Your task to perform on an android device: Is it going to rain today? Image 0: 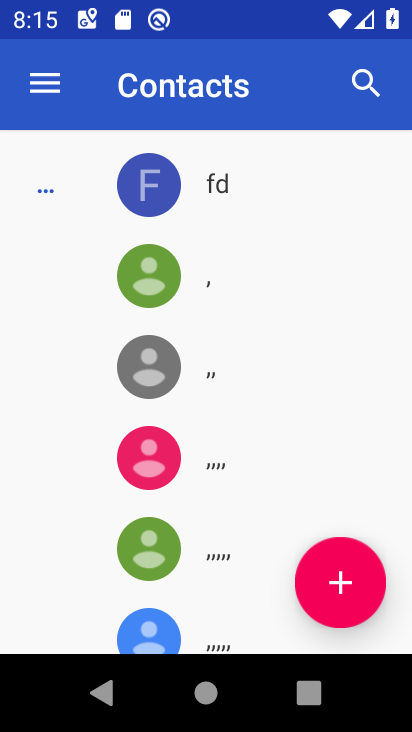
Step 0: press home button
Your task to perform on an android device: Is it going to rain today? Image 1: 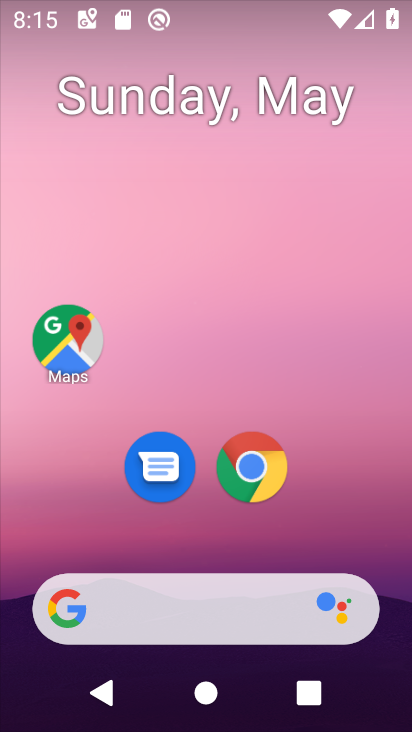
Step 1: drag from (368, 512) to (312, 99)
Your task to perform on an android device: Is it going to rain today? Image 2: 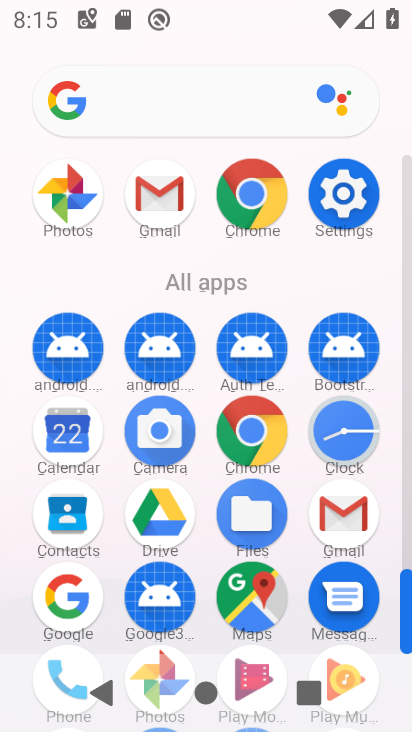
Step 2: click (267, 189)
Your task to perform on an android device: Is it going to rain today? Image 3: 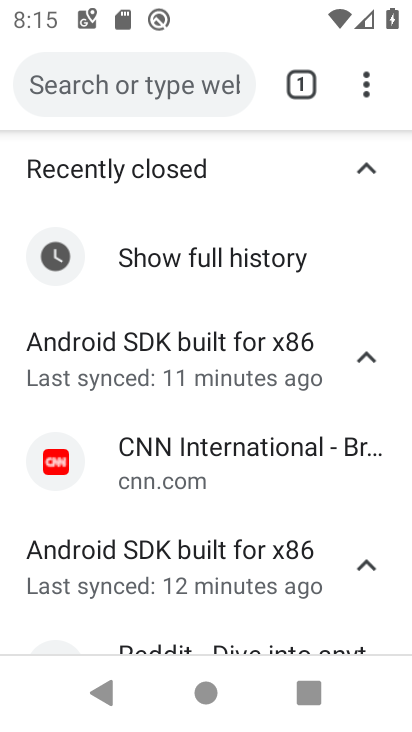
Step 3: click (184, 80)
Your task to perform on an android device: Is it going to rain today? Image 4: 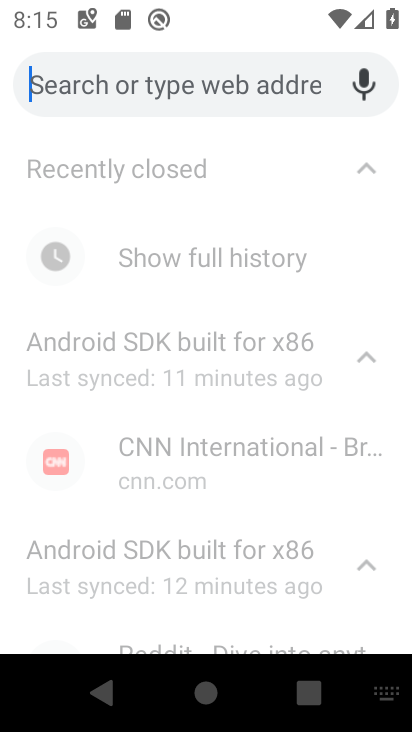
Step 4: type "is it going to rain today"
Your task to perform on an android device: Is it going to rain today? Image 5: 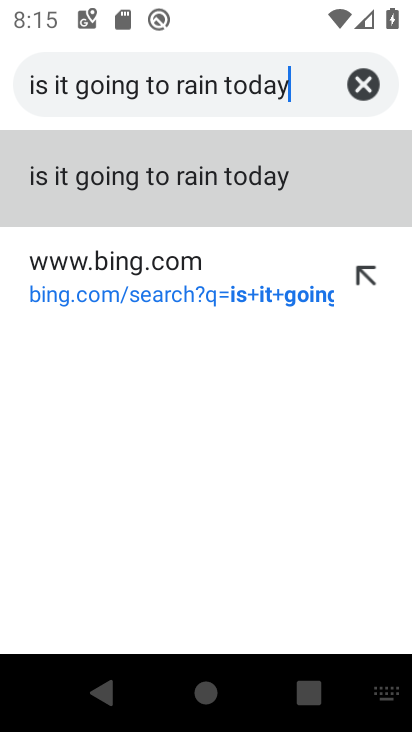
Step 5: click (285, 177)
Your task to perform on an android device: Is it going to rain today? Image 6: 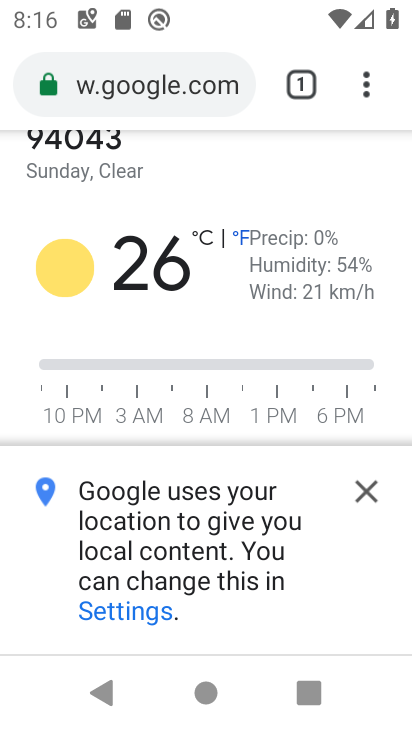
Step 6: drag from (287, 257) to (262, 521)
Your task to perform on an android device: Is it going to rain today? Image 7: 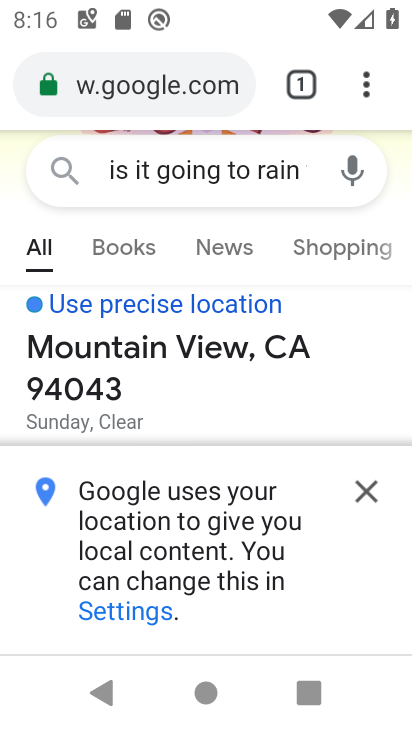
Step 7: click (359, 497)
Your task to perform on an android device: Is it going to rain today? Image 8: 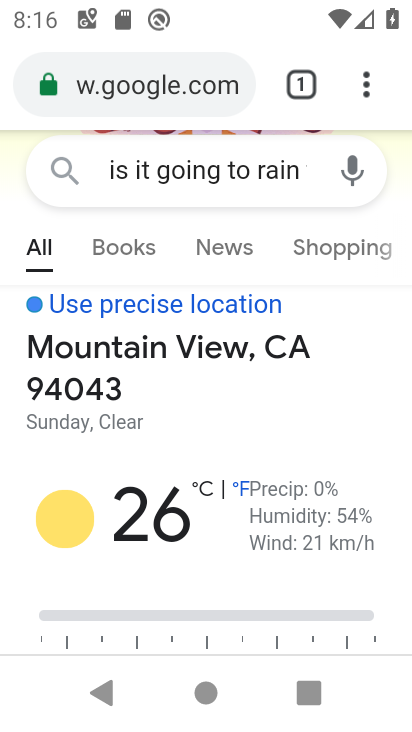
Step 8: task complete